Your task to perform on an android device: Open Google Maps Image 0: 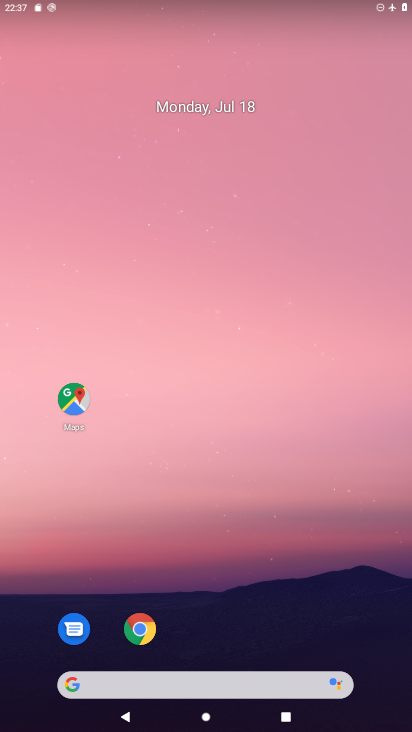
Step 0: drag from (322, 604) to (229, 42)
Your task to perform on an android device: Open Google Maps Image 1: 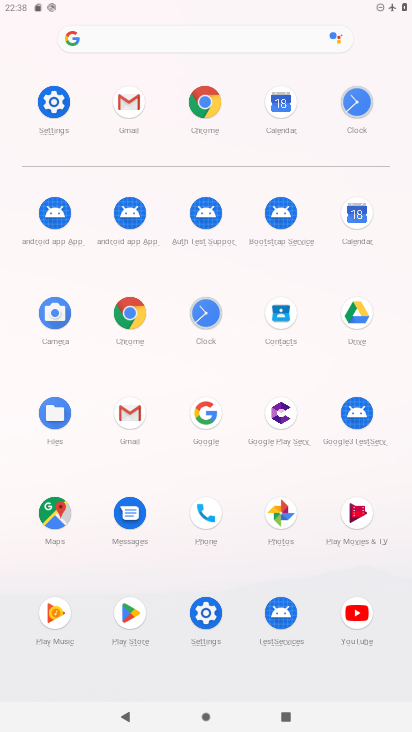
Step 1: click (55, 511)
Your task to perform on an android device: Open Google Maps Image 2: 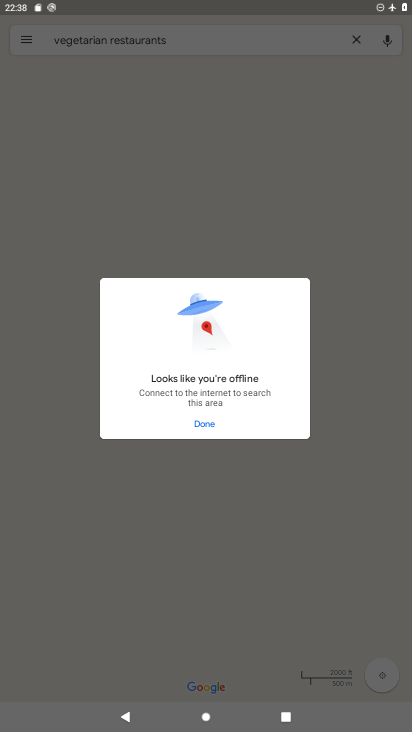
Step 2: task complete